Your task to perform on an android device: Show me popular games on the Play Store Image 0: 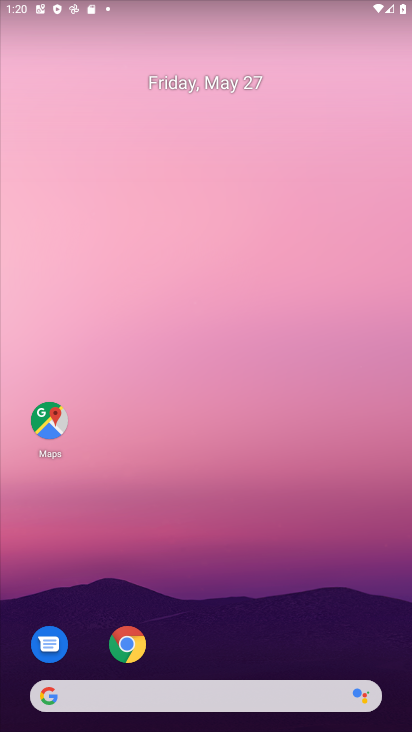
Step 0: drag from (329, 637) to (275, 42)
Your task to perform on an android device: Show me popular games on the Play Store Image 1: 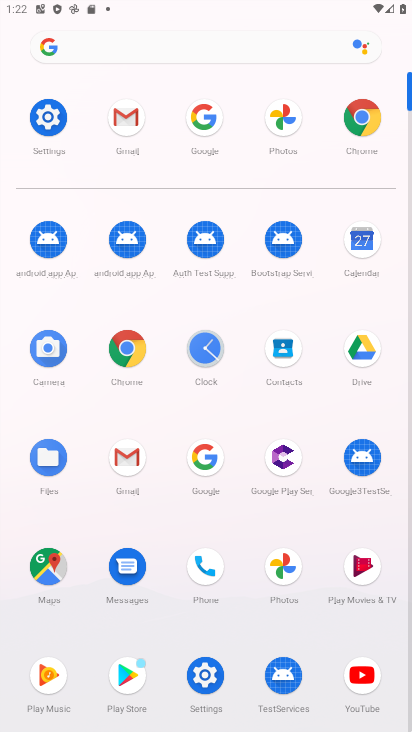
Step 1: click (125, 677)
Your task to perform on an android device: Show me popular games on the Play Store Image 2: 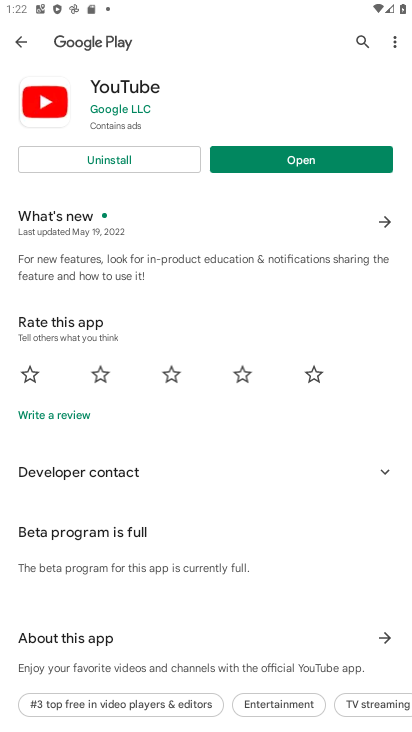
Step 2: press back button
Your task to perform on an android device: Show me popular games on the Play Store Image 3: 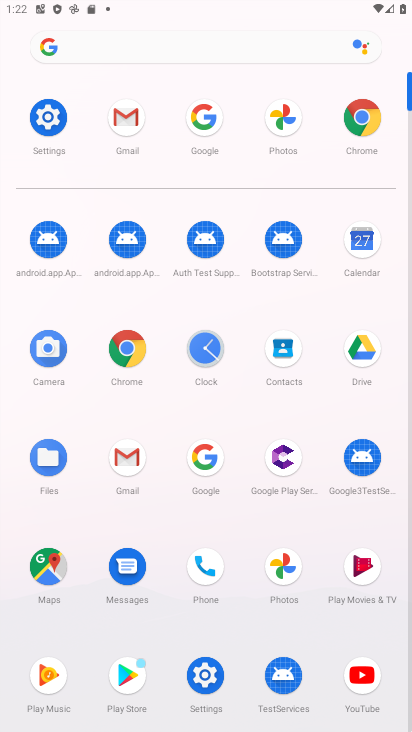
Step 3: click (132, 667)
Your task to perform on an android device: Show me popular games on the Play Store Image 4: 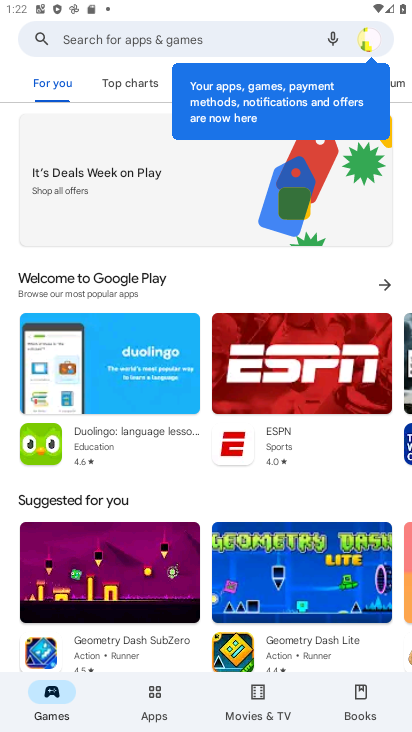
Step 4: task complete